Your task to perform on an android device: Open sound settings Image 0: 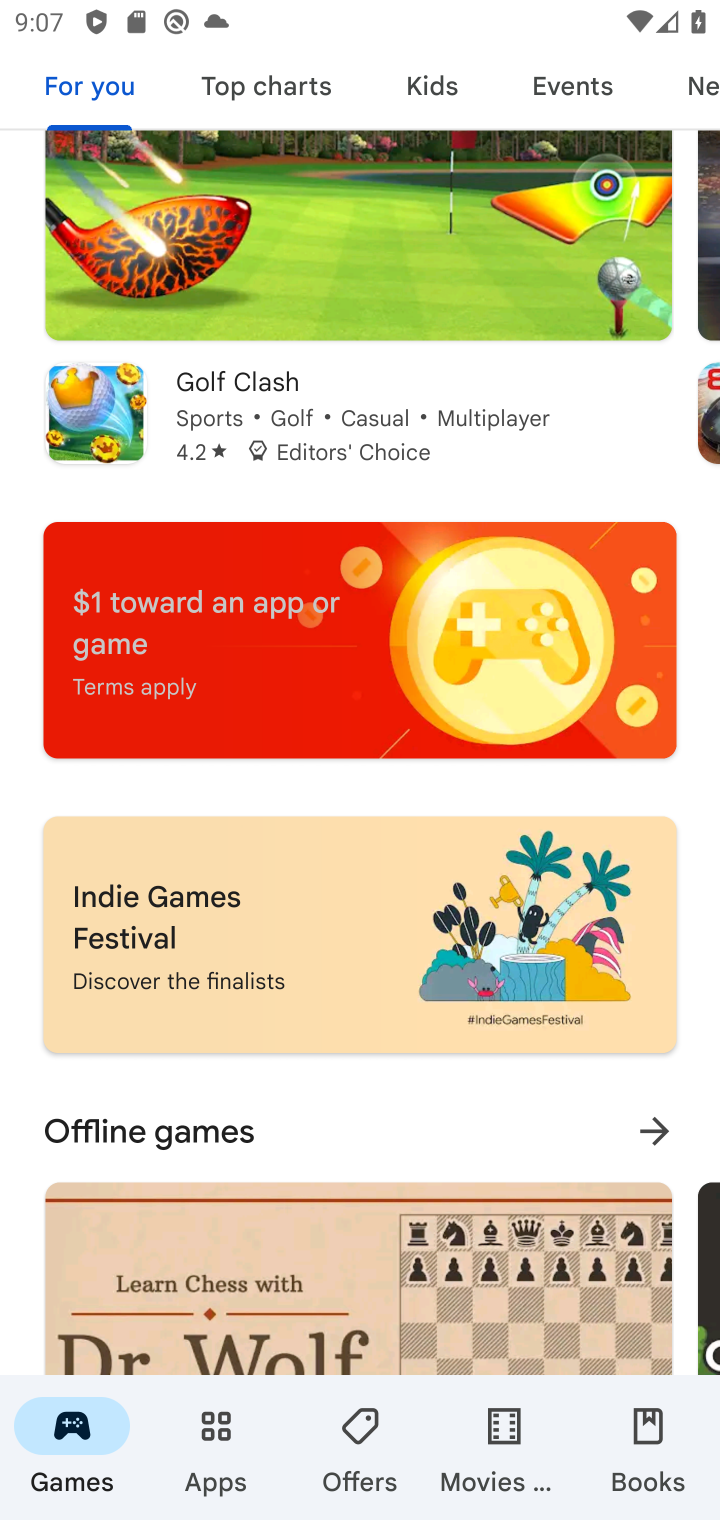
Step 0: press home button
Your task to perform on an android device: Open sound settings Image 1: 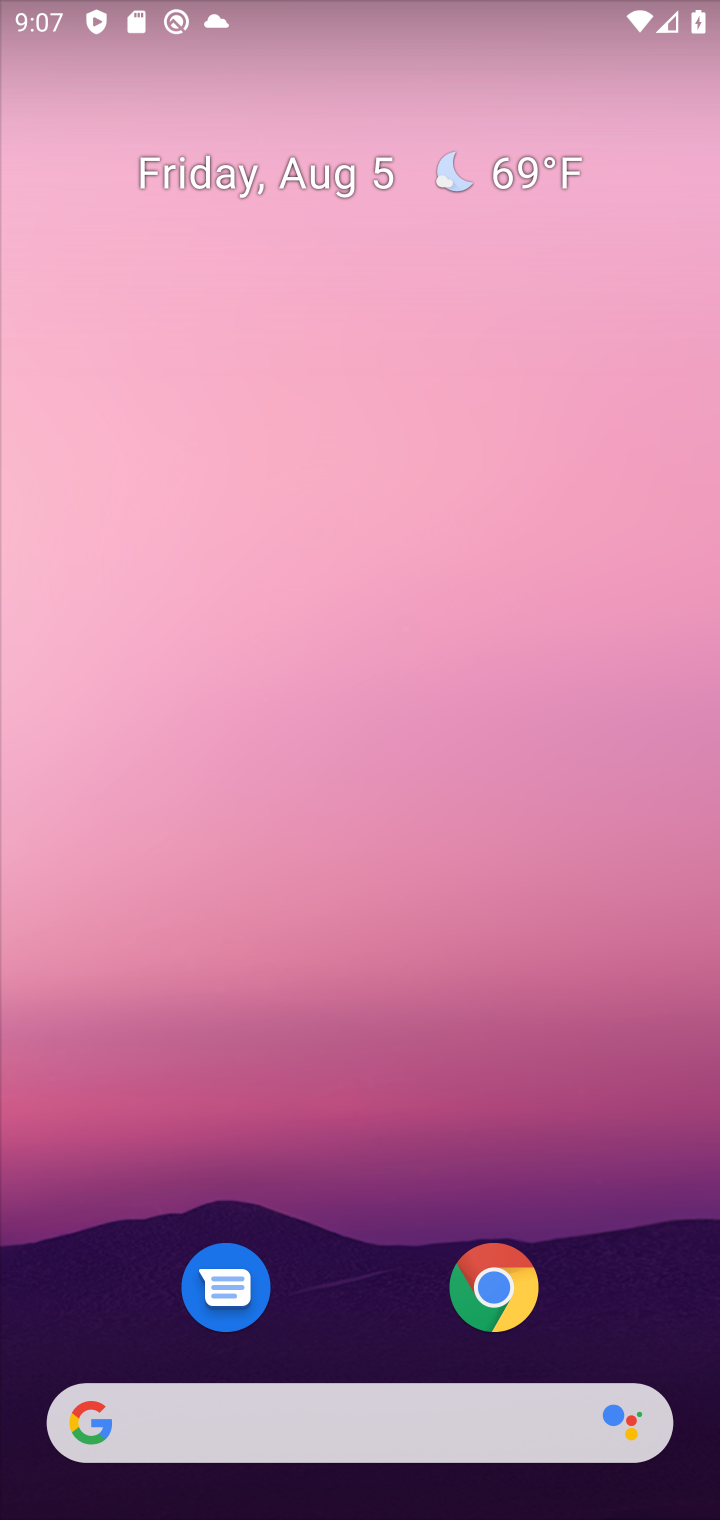
Step 1: drag from (381, 1308) to (413, 50)
Your task to perform on an android device: Open sound settings Image 2: 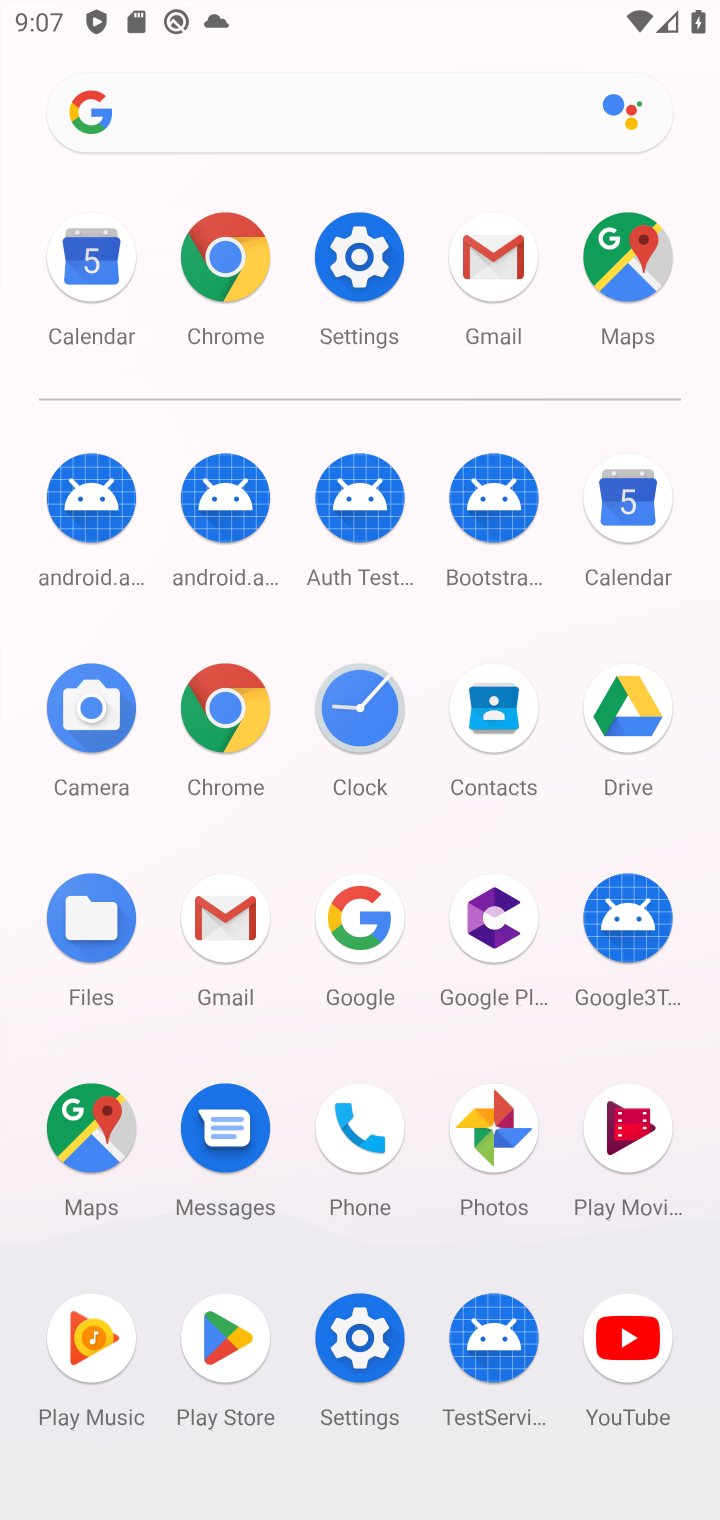
Step 2: click (372, 271)
Your task to perform on an android device: Open sound settings Image 3: 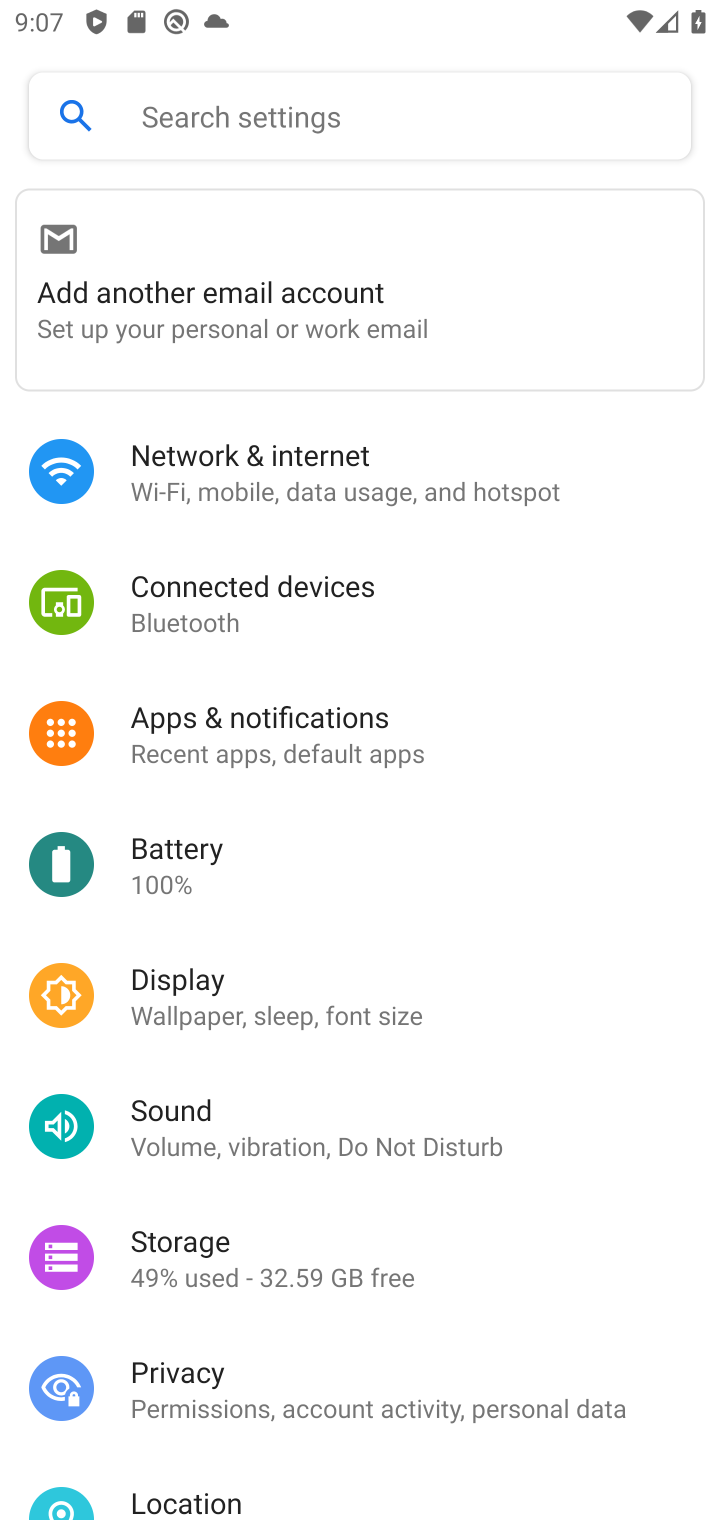
Step 3: click (184, 1126)
Your task to perform on an android device: Open sound settings Image 4: 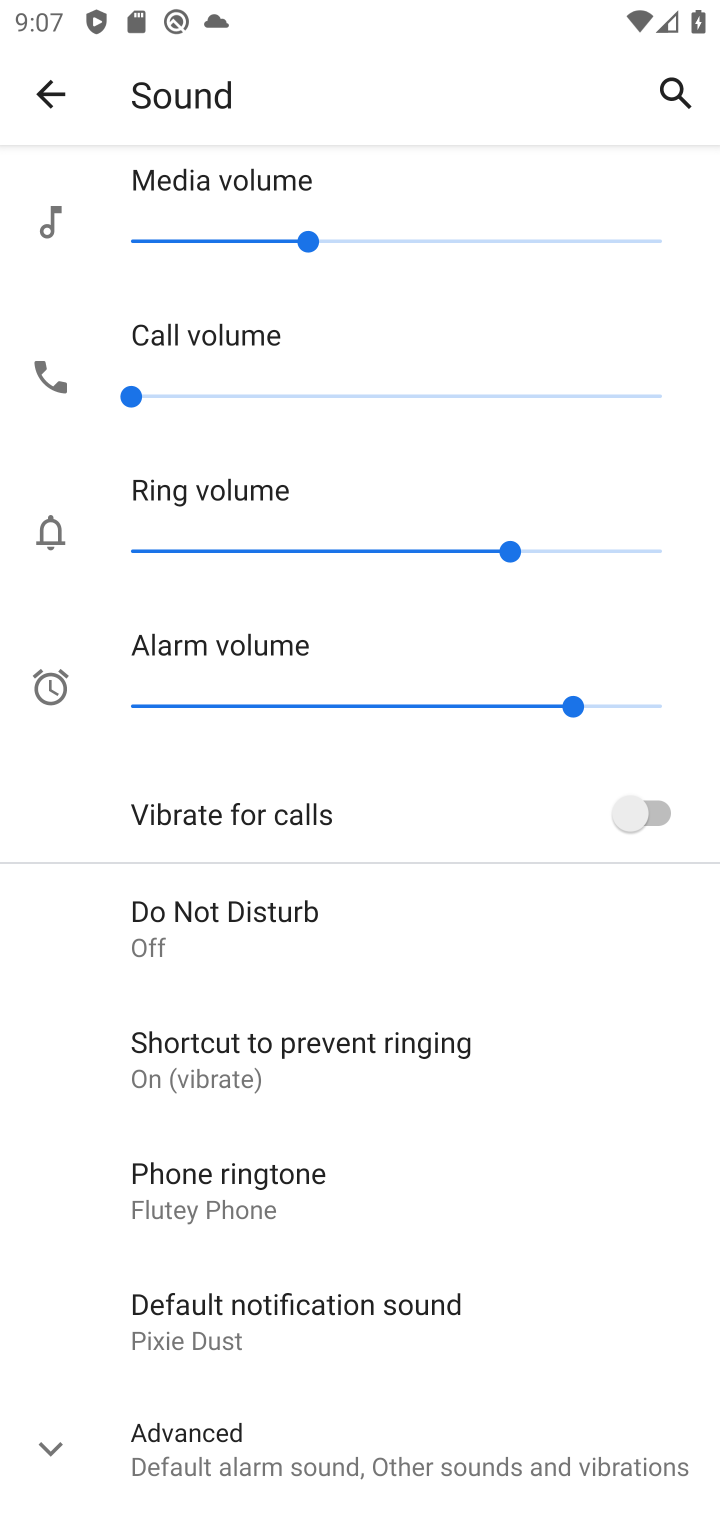
Step 4: task complete